Your task to perform on an android device: see tabs open on other devices in the chrome app Image 0: 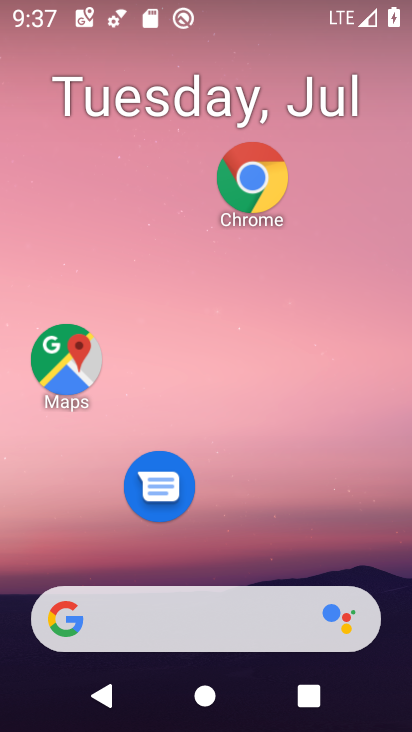
Step 0: drag from (274, 595) to (284, 39)
Your task to perform on an android device: see tabs open on other devices in the chrome app Image 1: 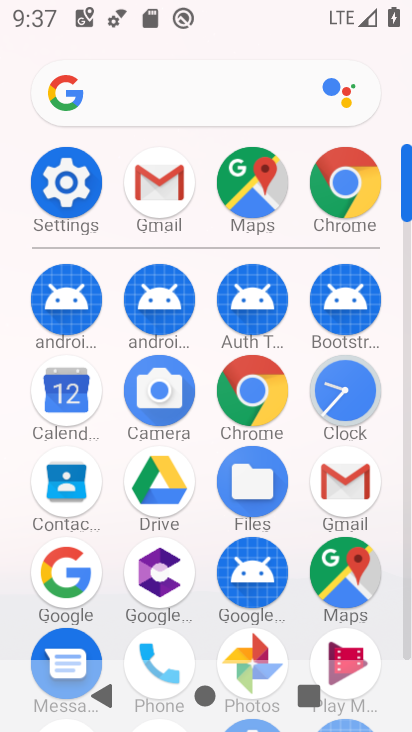
Step 1: click (353, 183)
Your task to perform on an android device: see tabs open on other devices in the chrome app Image 2: 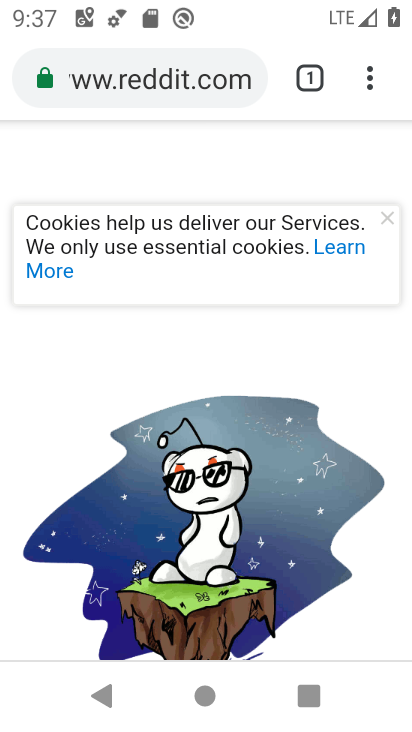
Step 2: task complete